Your task to perform on an android device: Check the weather Image 0: 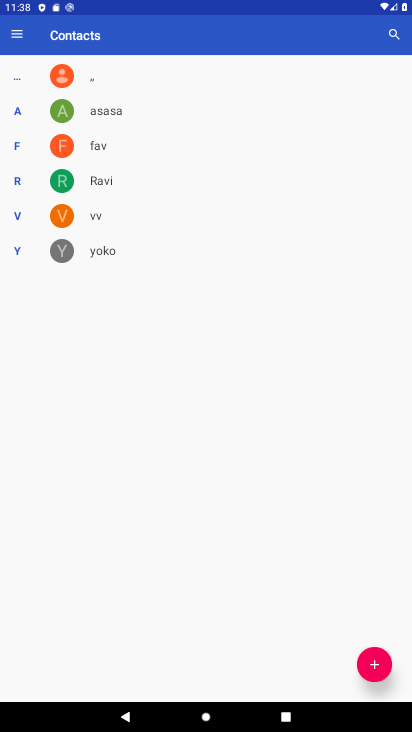
Step 0: press home button
Your task to perform on an android device: Check the weather Image 1: 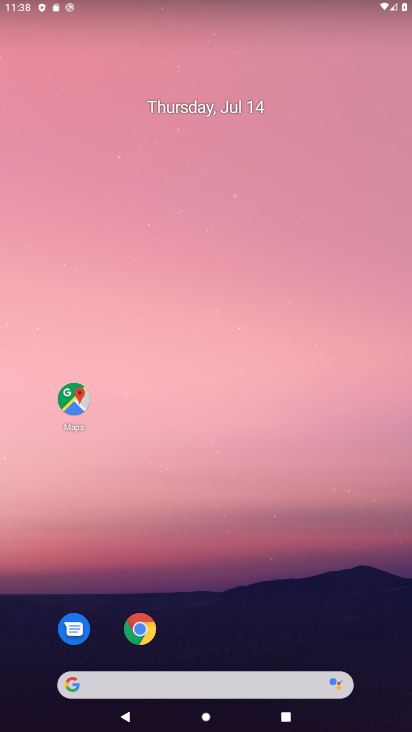
Step 1: drag from (236, 601) to (212, 139)
Your task to perform on an android device: Check the weather Image 2: 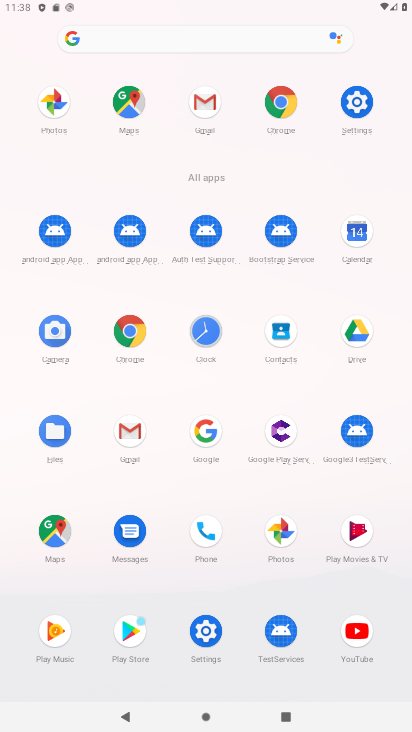
Step 2: click (286, 104)
Your task to perform on an android device: Check the weather Image 3: 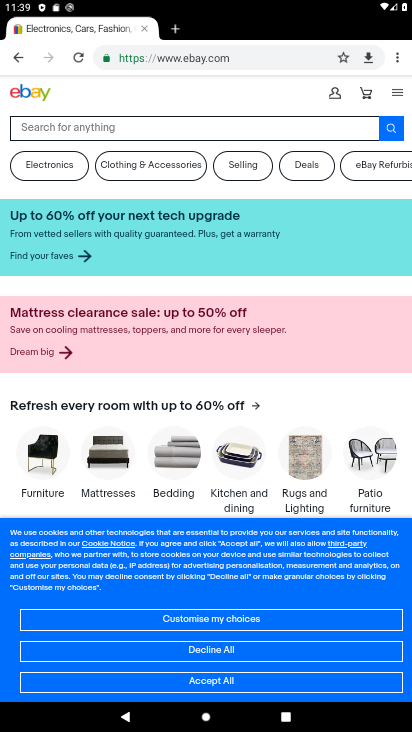
Step 3: click (224, 59)
Your task to perform on an android device: Check the weather Image 4: 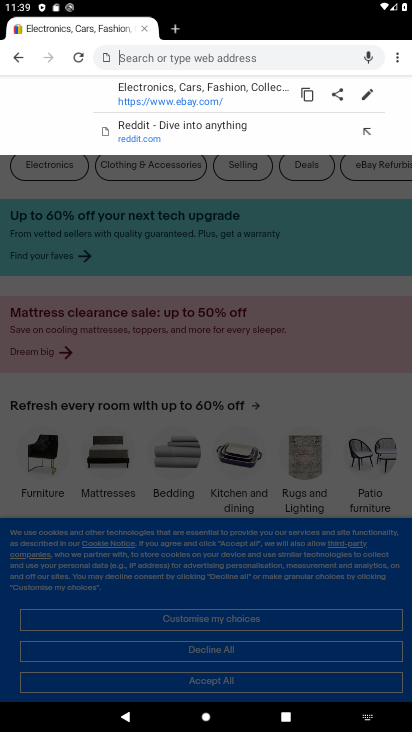
Step 4: type "weather"
Your task to perform on an android device: Check the weather Image 5: 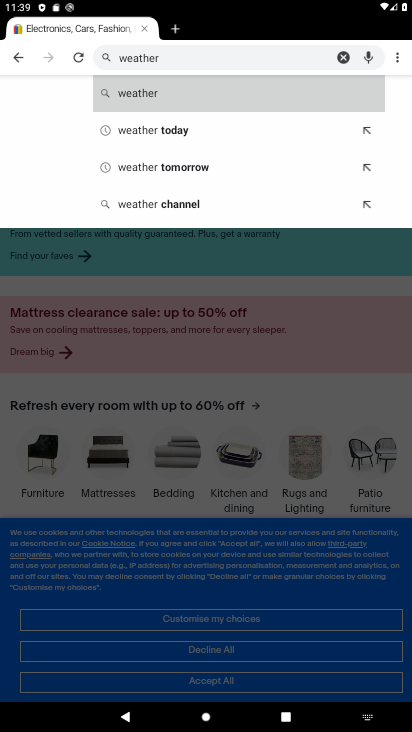
Step 5: click (145, 97)
Your task to perform on an android device: Check the weather Image 6: 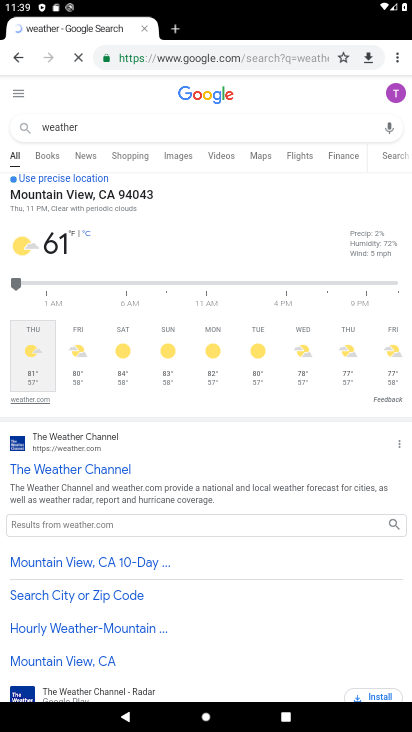
Step 6: task complete